Your task to perform on an android device: Open eBay Image 0: 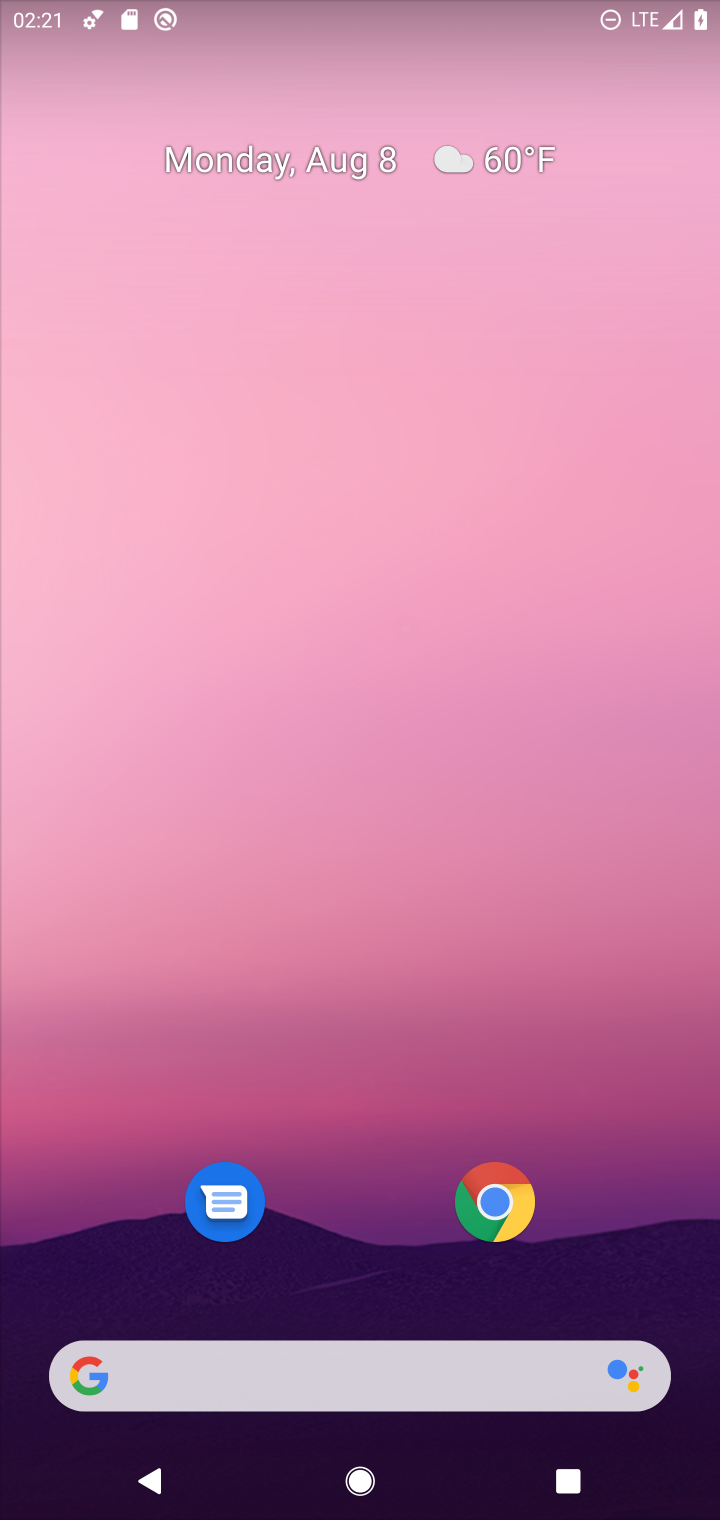
Step 0: press home button
Your task to perform on an android device: Open eBay Image 1: 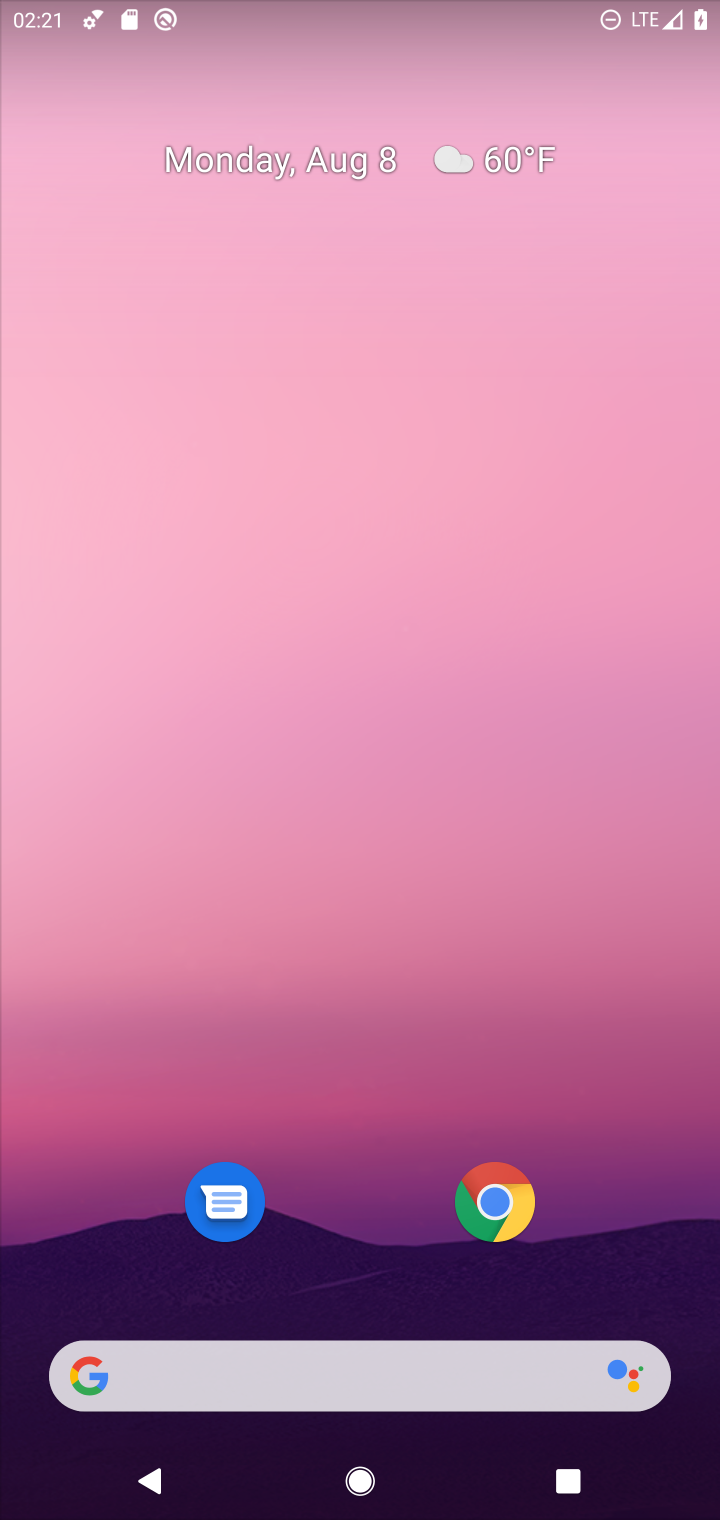
Step 1: drag from (394, 1285) to (461, 298)
Your task to perform on an android device: Open eBay Image 2: 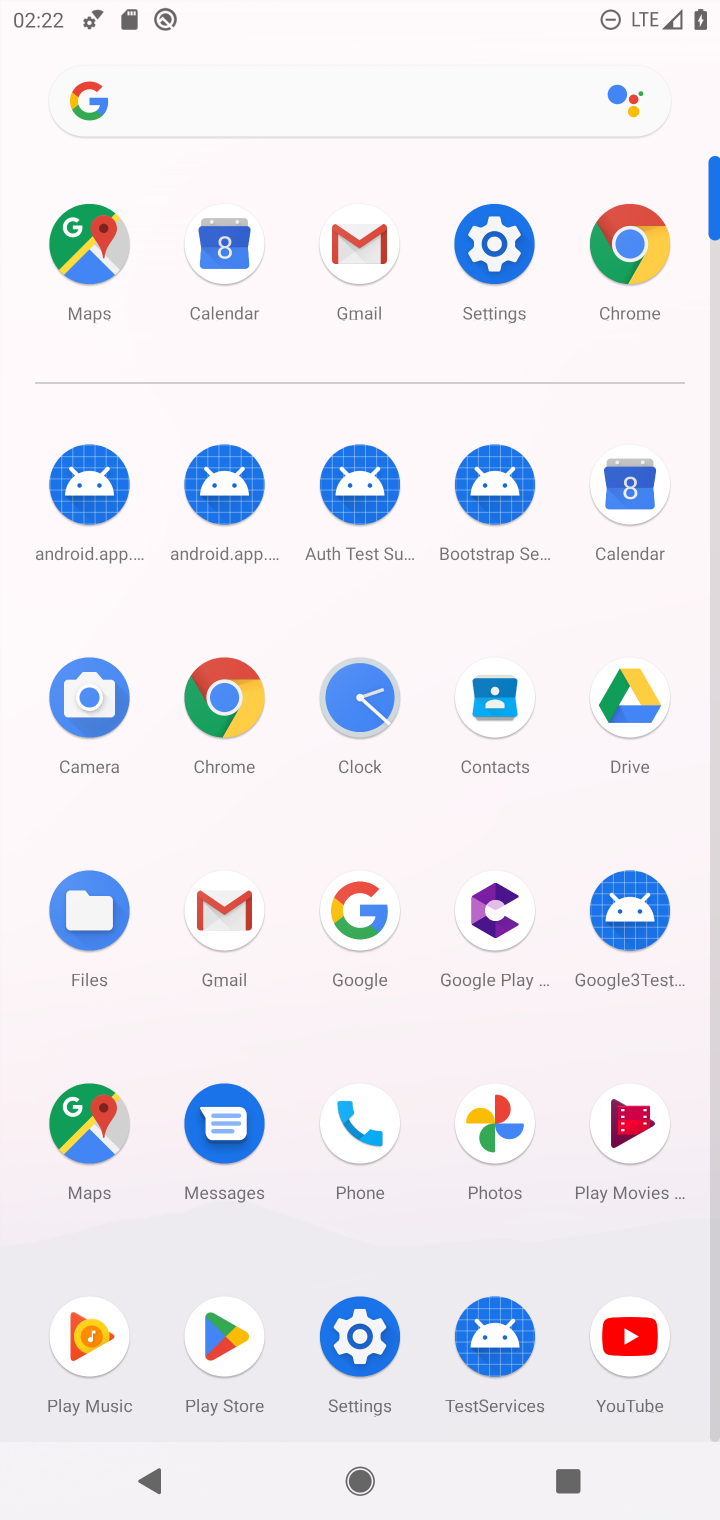
Step 2: click (213, 700)
Your task to perform on an android device: Open eBay Image 3: 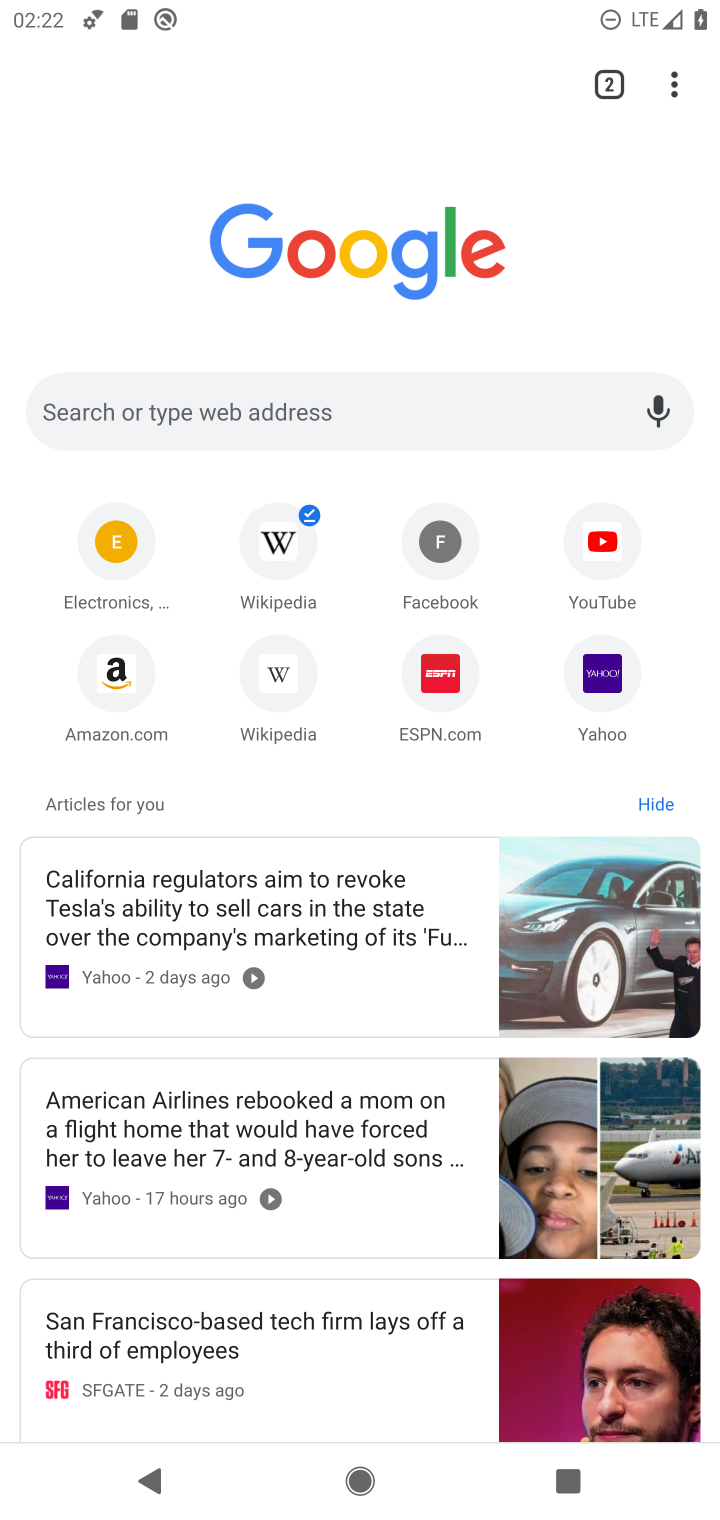
Step 3: click (362, 405)
Your task to perform on an android device: Open eBay Image 4: 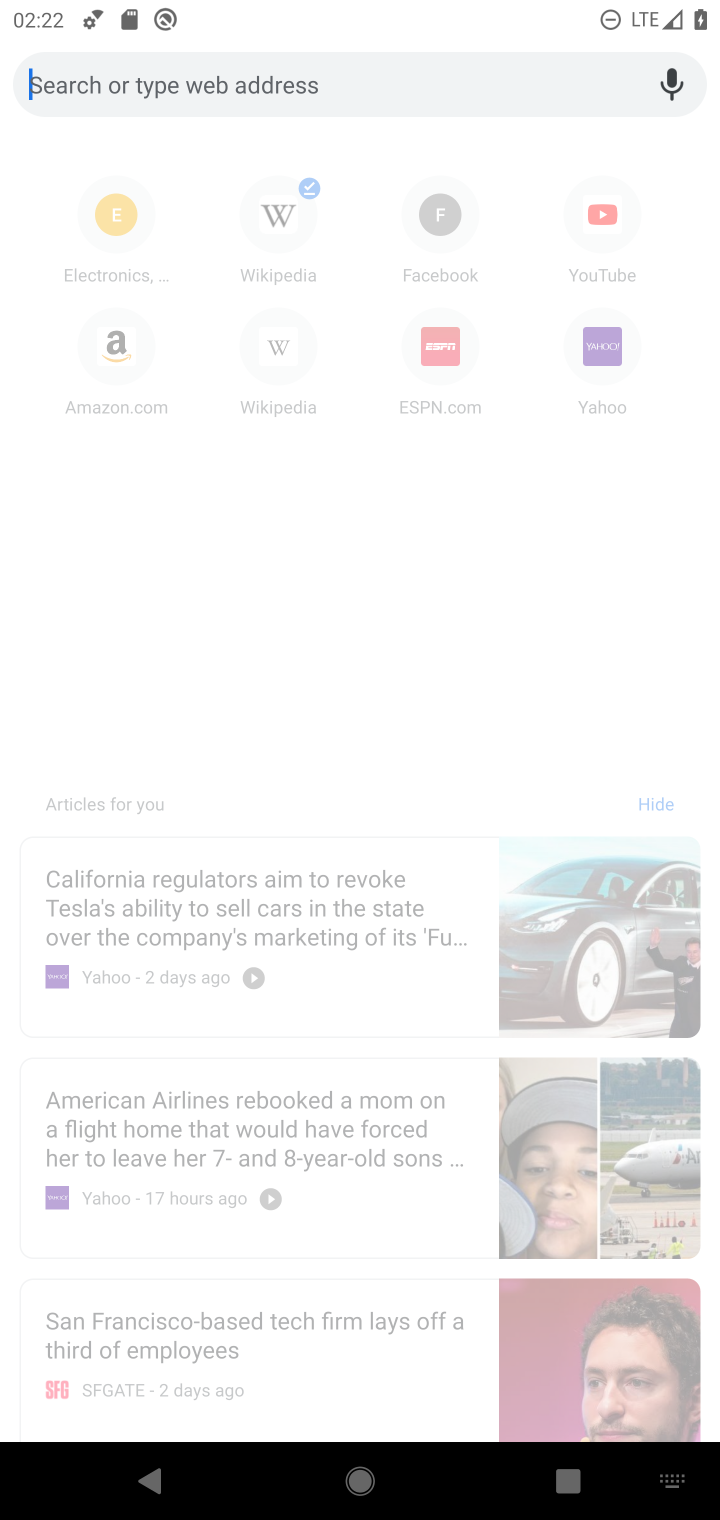
Step 4: type "ebay"
Your task to perform on an android device: Open eBay Image 5: 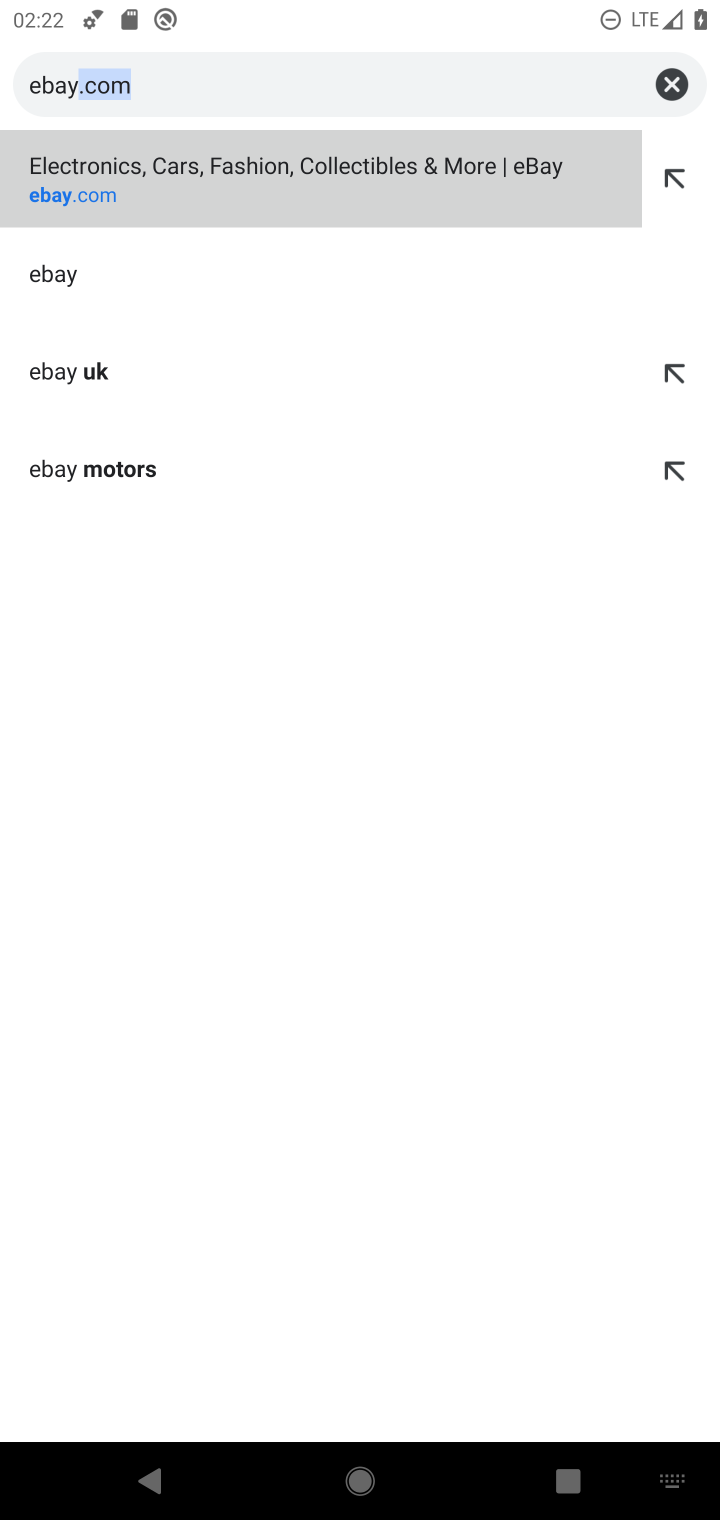
Step 5: click (372, 184)
Your task to perform on an android device: Open eBay Image 6: 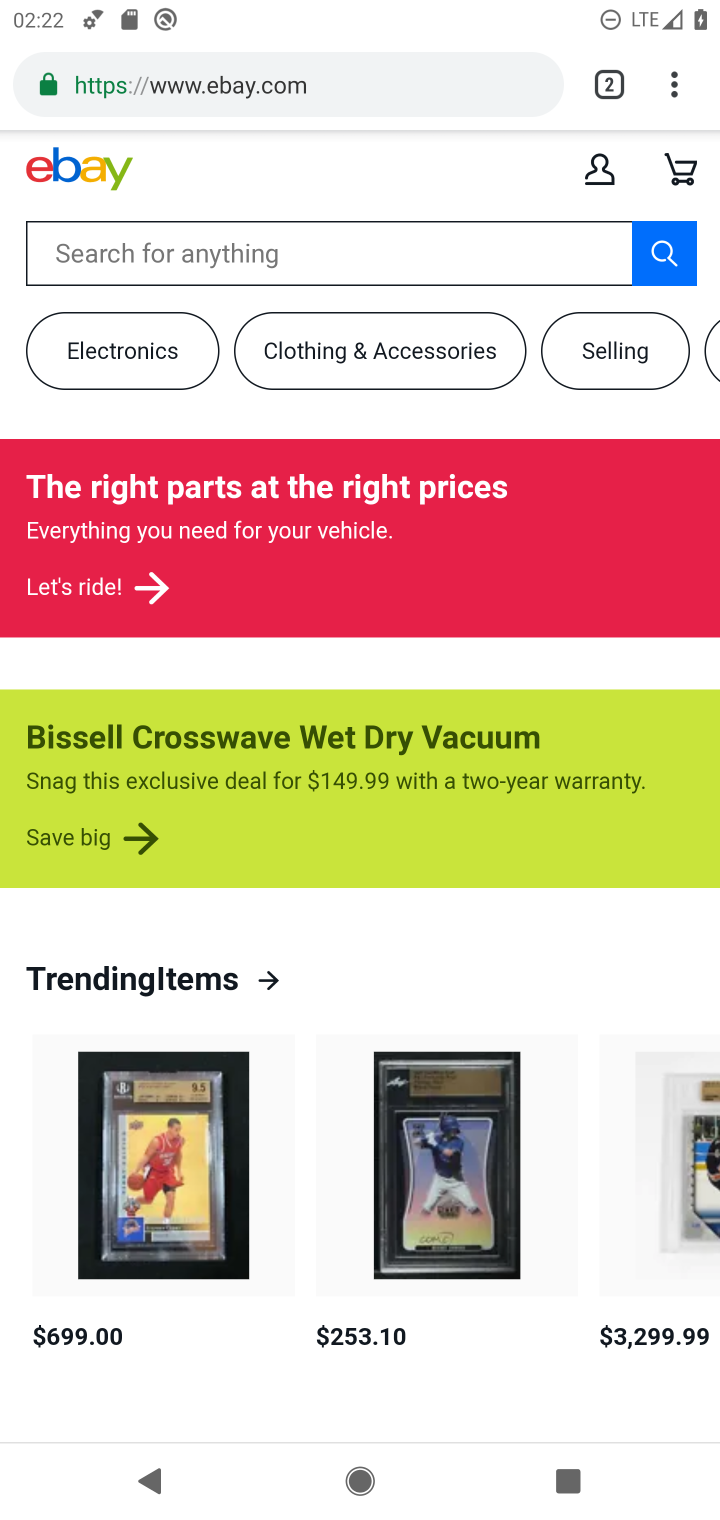
Step 6: task complete